Your task to perform on an android device: open a bookmark in the chrome app Image 0: 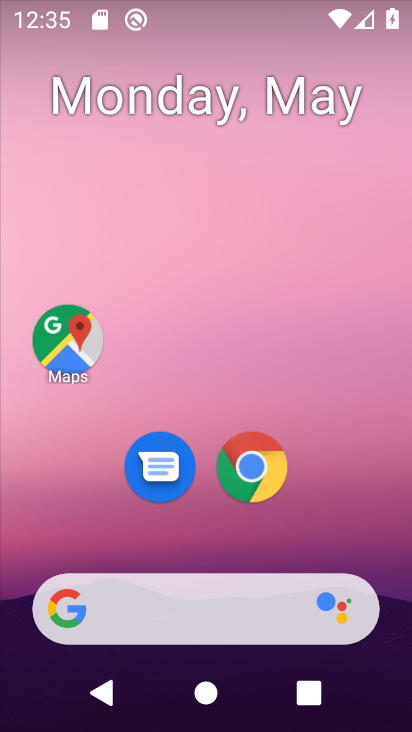
Step 0: drag from (213, 530) to (269, 134)
Your task to perform on an android device: open a bookmark in the chrome app Image 1: 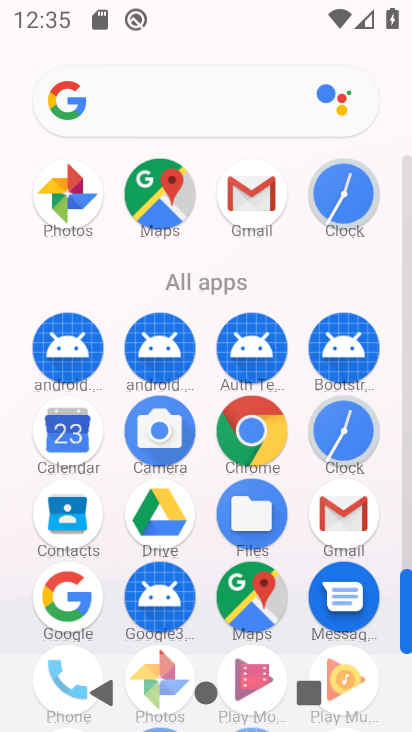
Step 1: click (245, 408)
Your task to perform on an android device: open a bookmark in the chrome app Image 2: 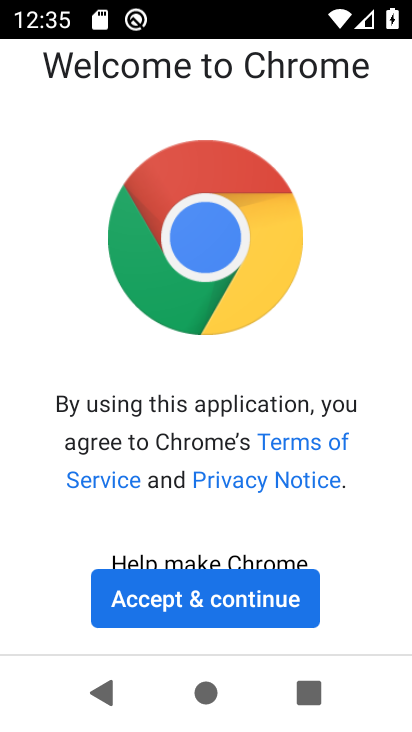
Step 2: click (174, 595)
Your task to perform on an android device: open a bookmark in the chrome app Image 3: 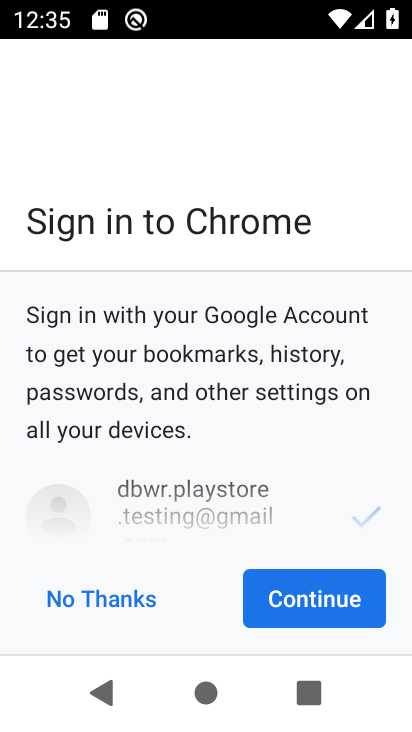
Step 3: click (286, 591)
Your task to perform on an android device: open a bookmark in the chrome app Image 4: 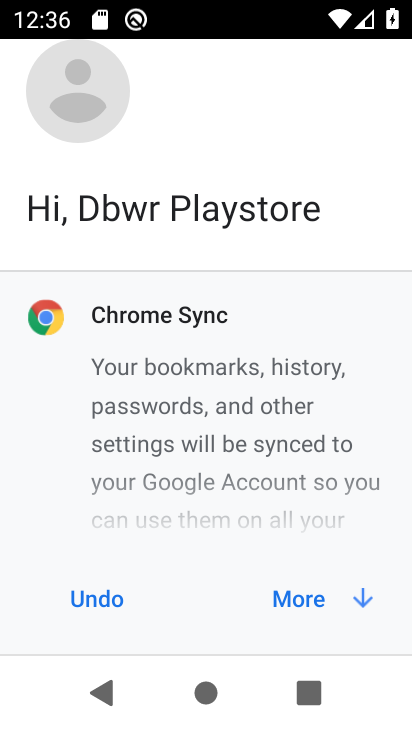
Step 4: drag from (239, 564) to (262, 370)
Your task to perform on an android device: open a bookmark in the chrome app Image 5: 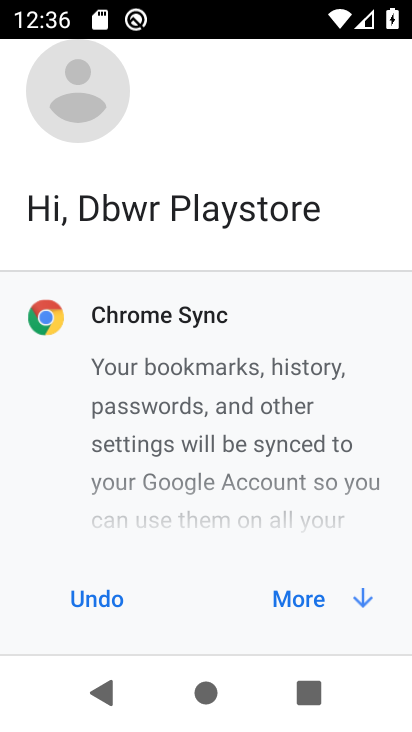
Step 5: drag from (190, 560) to (244, 204)
Your task to perform on an android device: open a bookmark in the chrome app Image 6: 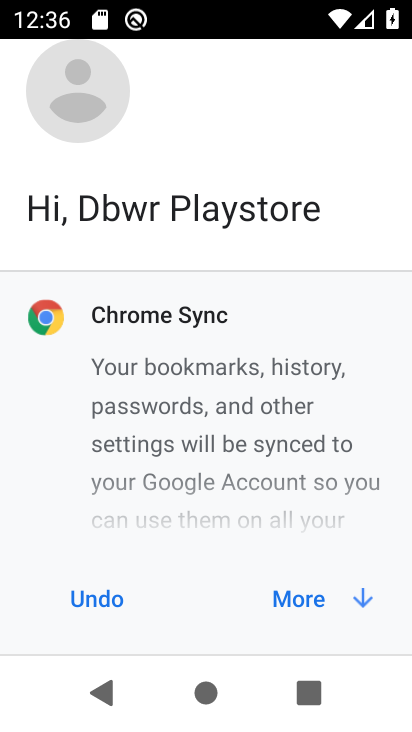
Step 6: click (296, 598)
Your task to perform on an android device: open a bookmark in the chrome app Image 7: 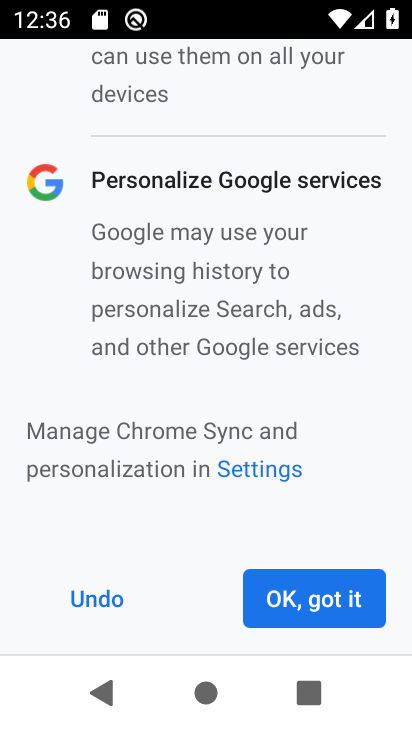
Step 7: click (296, 598)
Your task to perform on an android device: open a bookmark in the chrome app Image 8: 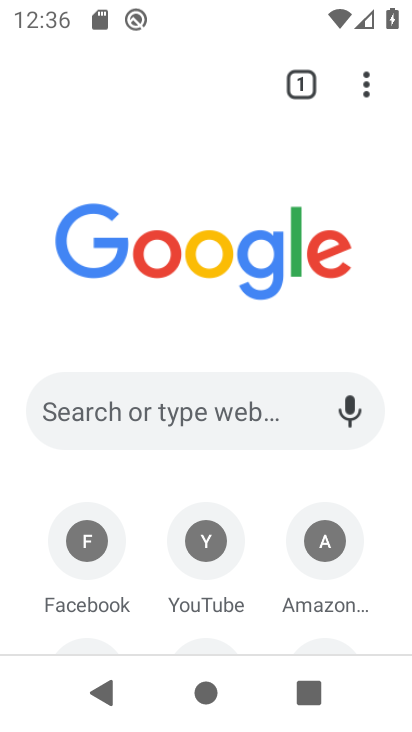
Step 8: click (363, 89)
Your task to perform on an android device: open a bookmark in the chrome app Image 9: 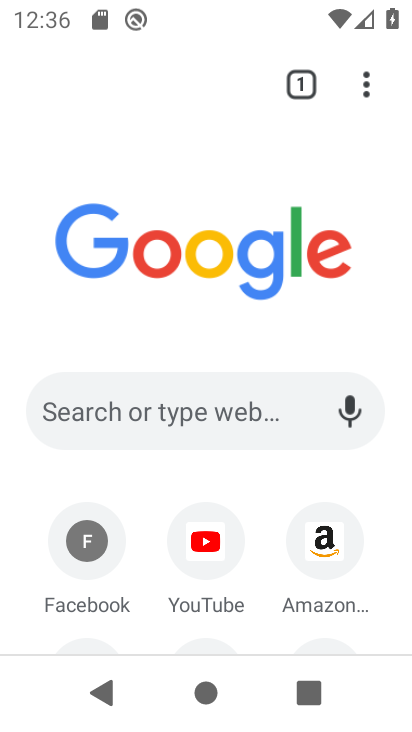
Step 9: drag from (260, 484) to (273, 213)
Your task to perform on an android device: open a bookmark in the chrome app Image 10: 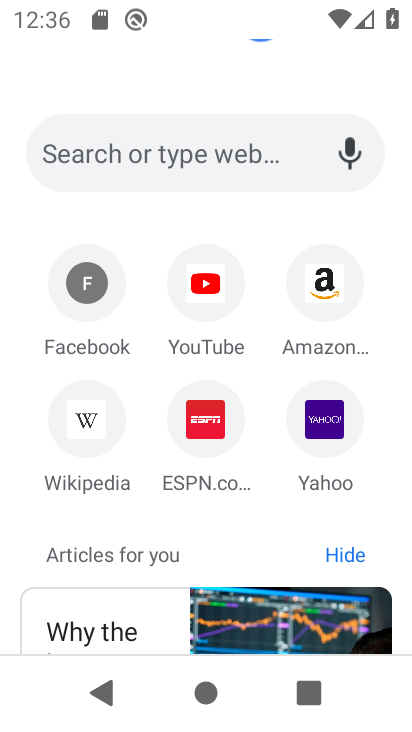
Step 10: drag from (288, 178) to (332, 638)
Your task to perform on an android device: open a bookmark in the chrome app Image 11: 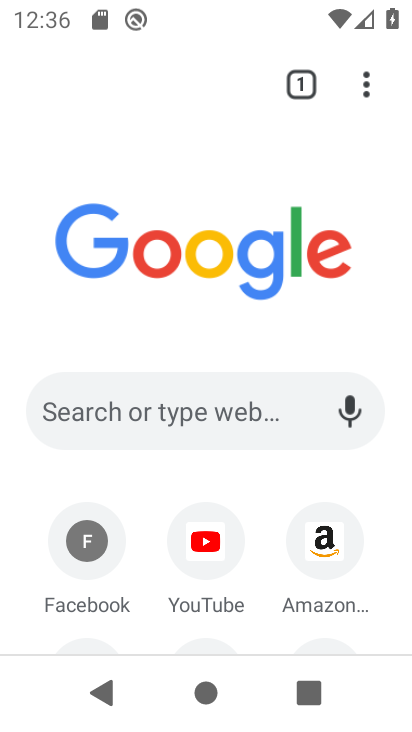
Step 11: click (370, 78)
Your task to perform on an android device: open a bookmark in the chrome app Image 12: 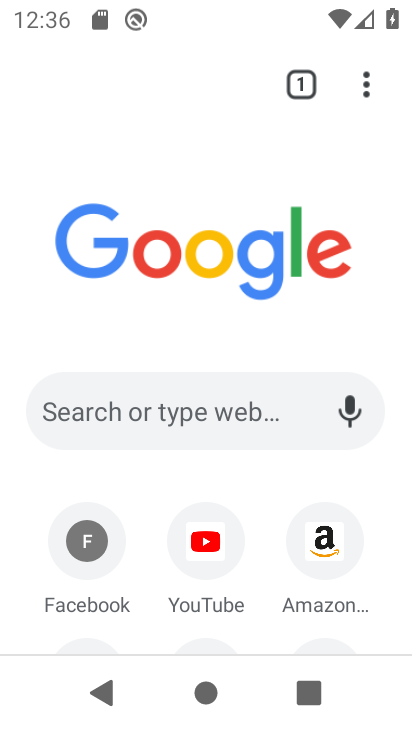
Step 12: click (360, 75)
Your task to perform on an android device: open a bookmark in the chrome app Image 13: 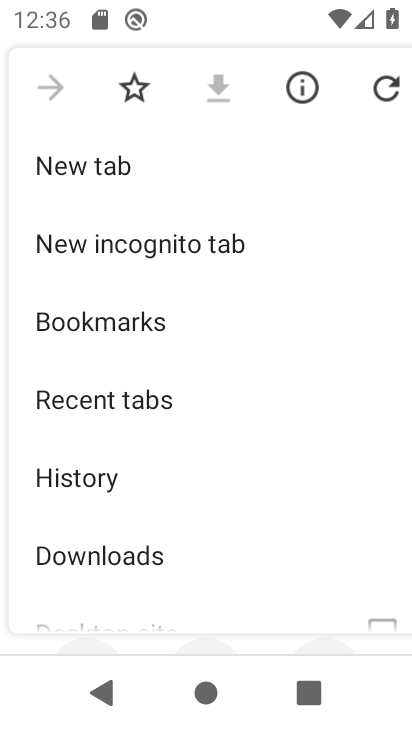
Step 13: drag from (133, 460) to (149, 252)
Your task to perform on an android device: open a bookmark in the chrome app Image 14: 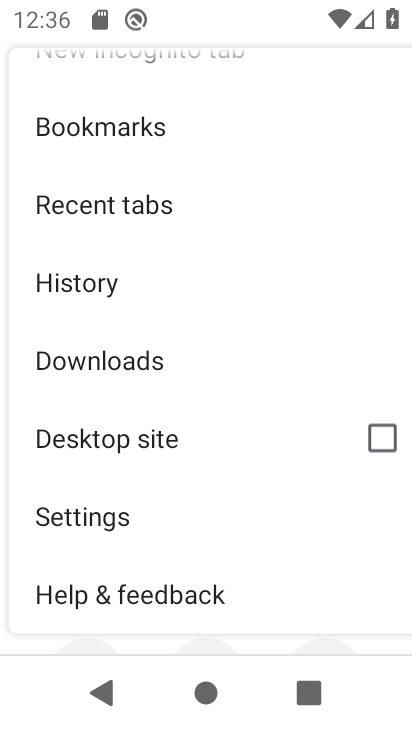
Step 14: drag from (117, 499) to (175, 197)
Your task to perform on an android device: open a bookmark in the chrome app Image 15: 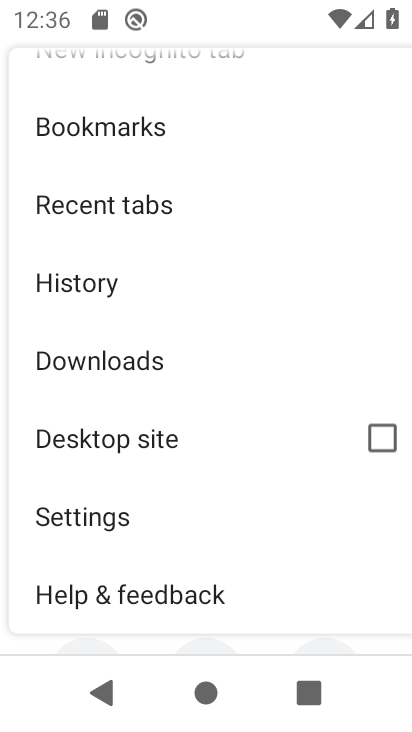
Step 15: click (149, 130)
Your task to perform on an android device: open a bookmark in the chrome app Image 16: 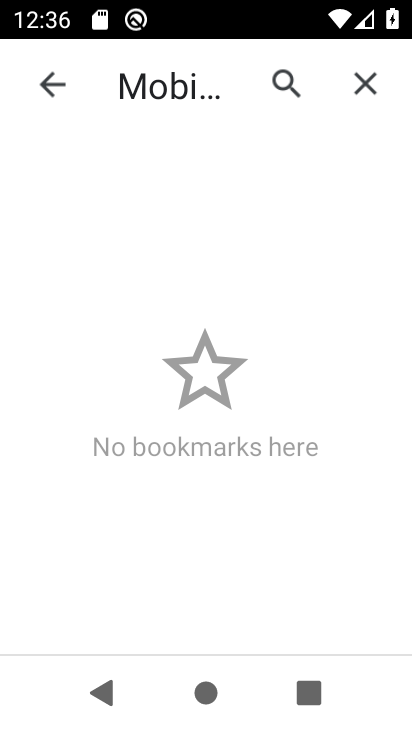
Step 16: drag from (184, 521) to (208, 374)
Your task to perform on an android device: open a bookmark in the chrome app Image 17: 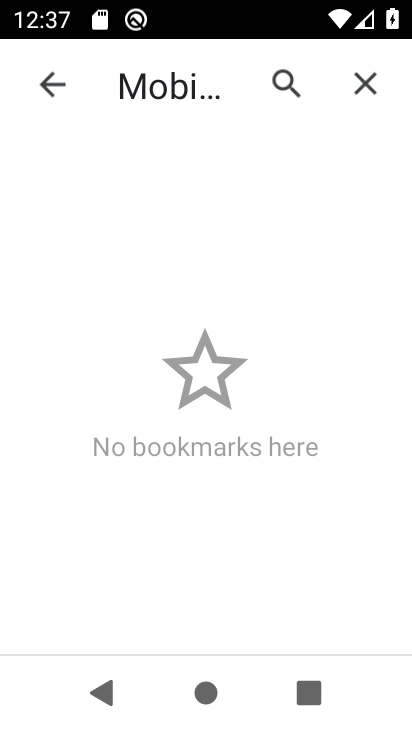
Step 17: drag from (125, 537) to (333, 115)
Your task to perform on an android device: open a bookmark in the chrome app Image 18: 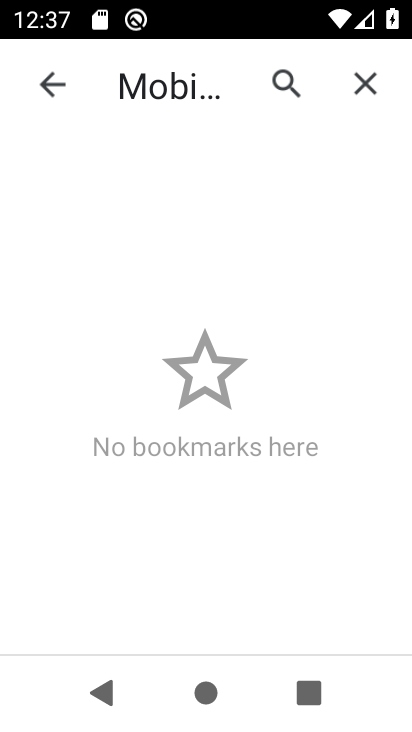
Step 18: drag from (201, 444) to (260, 260)
Your task to perform on an android device: open a bookmark in the chrome app Image 19: 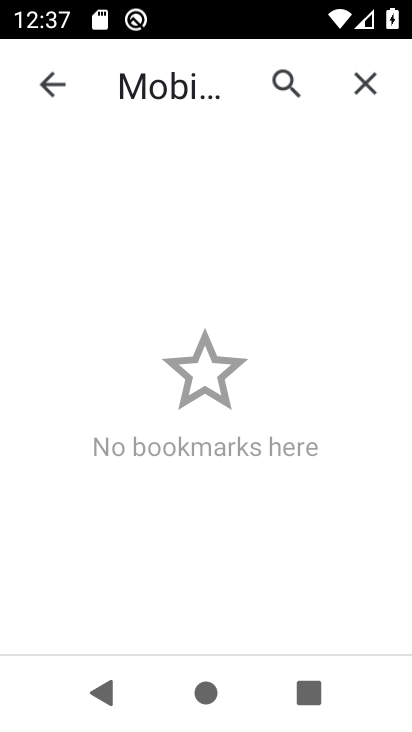
Step 19: click (245, 225)
Your task to perform on an android device: open a bookmark in the chrome app Image 20: 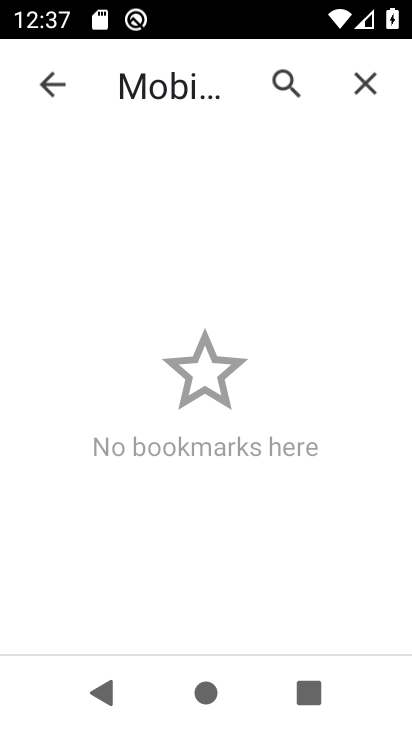
Step 20: task complete